Your task to perform on an android device: When is my next meeting? Image 0: 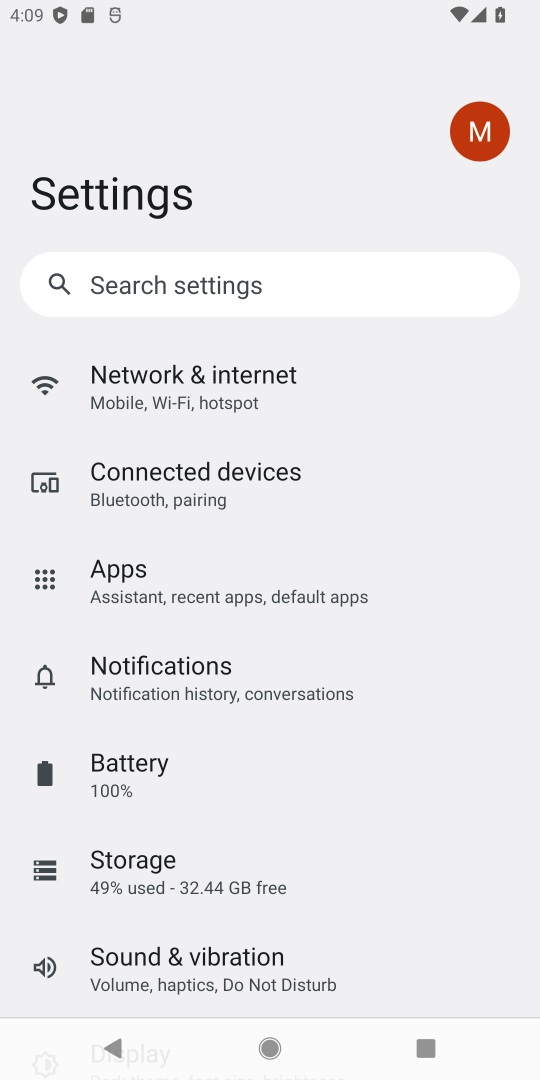
Step 0: press home button
Your task to perform on an android device: When is my next meeting? Image 1: 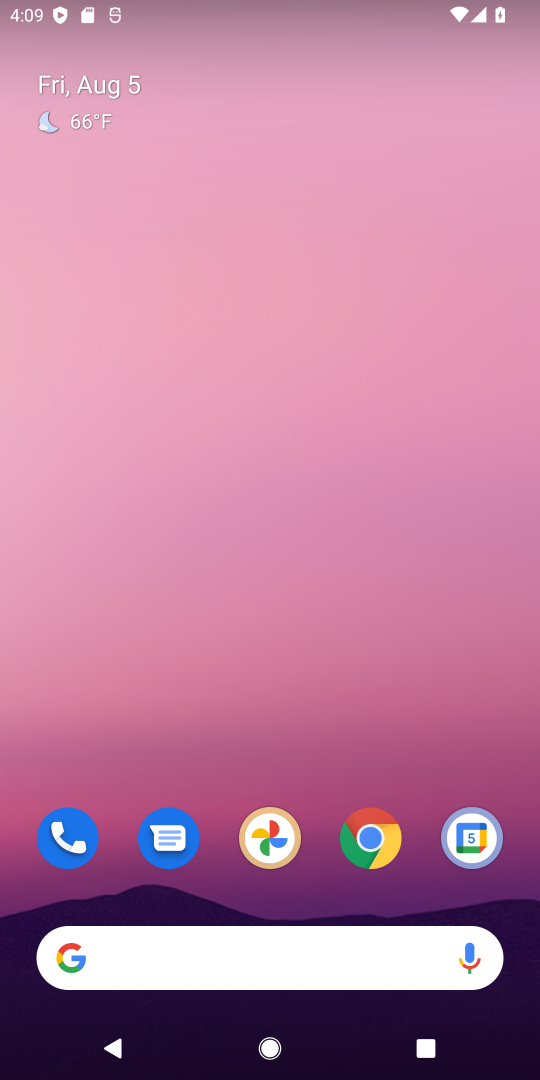
Step 1: drag from (277, 798) to (277, 278)
Your task to perform on an android device: When is my next meeting? Image 2: 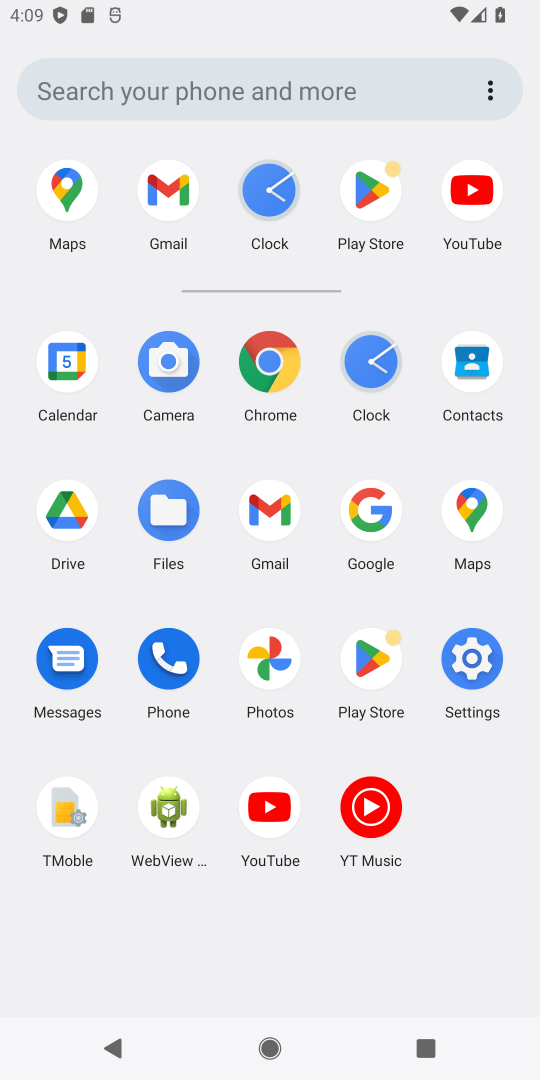
Step 2: click (61, 349)
Your task to perform on an android device: When is my next meeting? Image 3: 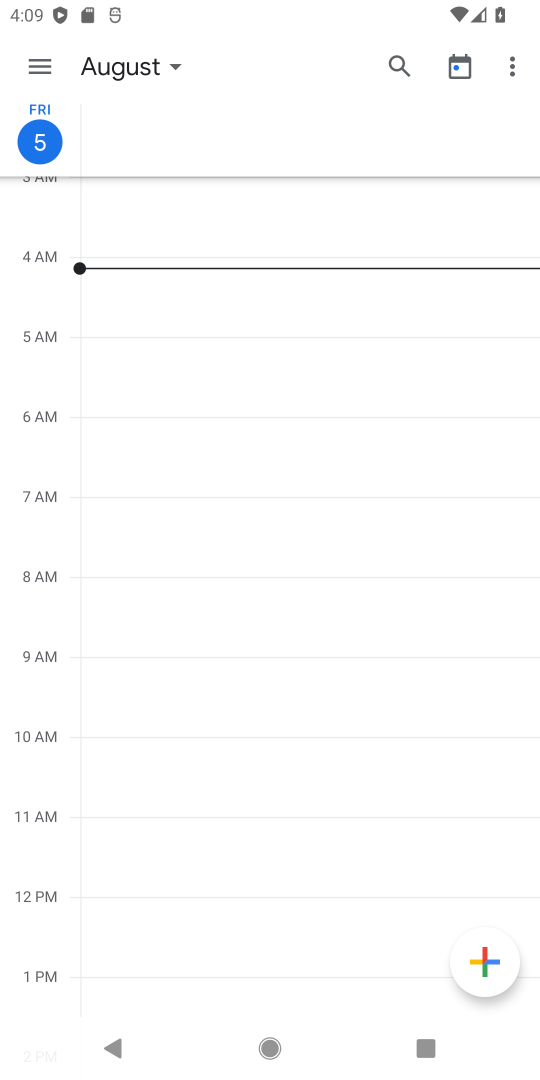
Step 3: click (48, 49)
Your task to perform on an android device: When is my next meeting? Image 4: 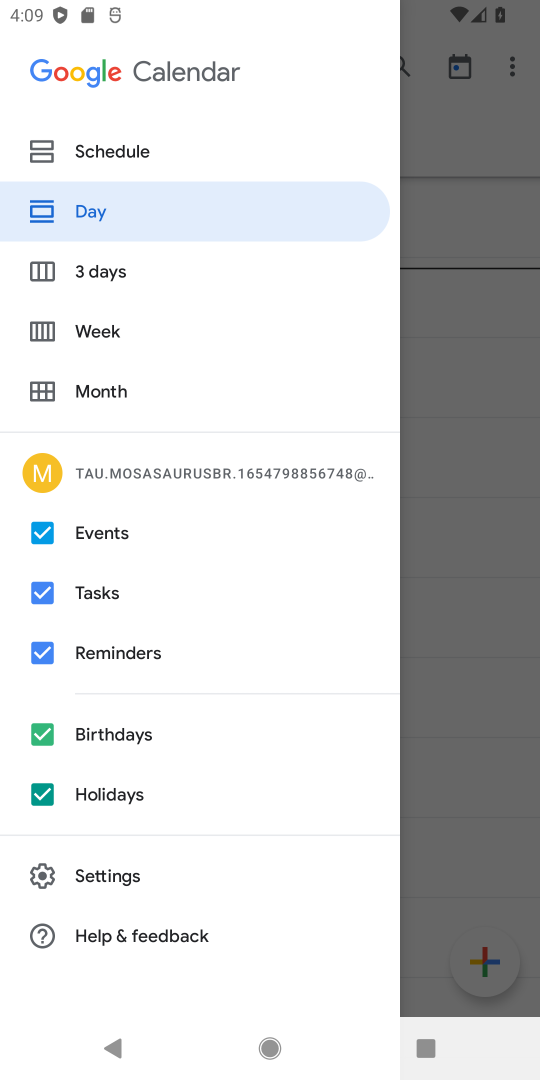
Step 4: click (115, 306)
Your task to perform on an android device: When is my next meeting? Image 5: 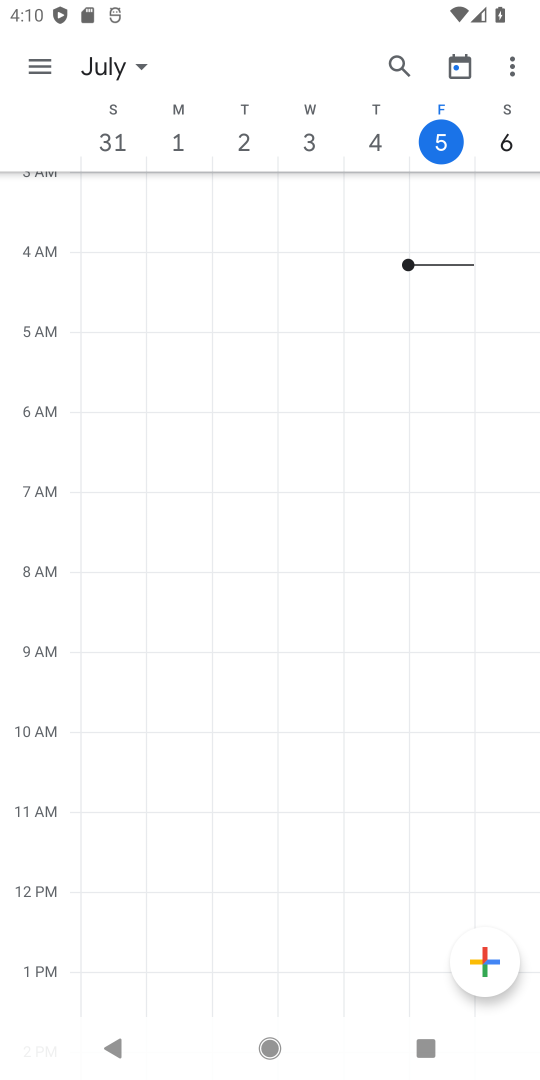
Step 5: click (435, 138)
Your task to perform on an android device: When is my next meeting? Image 6: 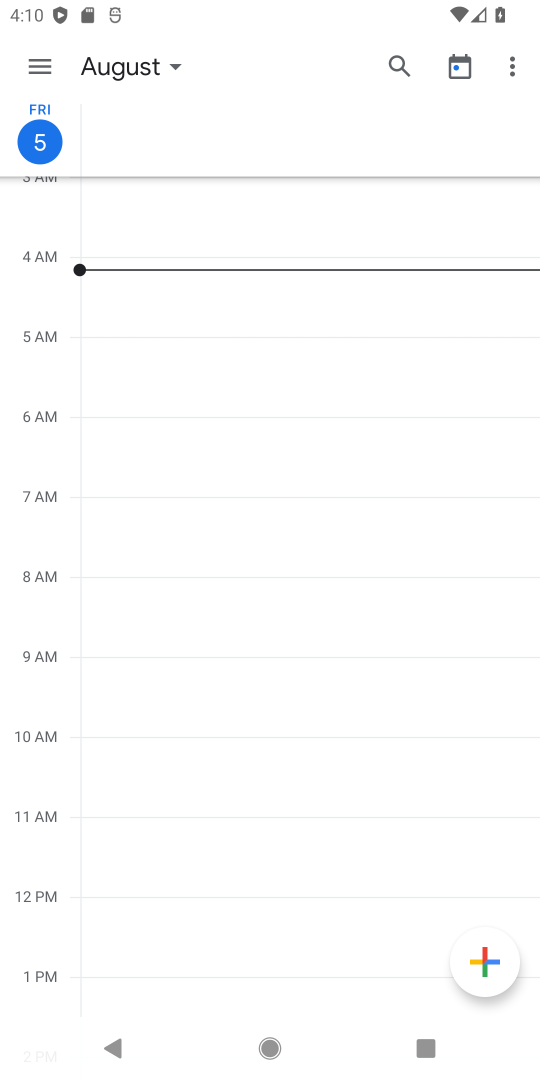
Step 6: task complete